Your task to perform on an android device: uninstall "Cash App" Image 0: 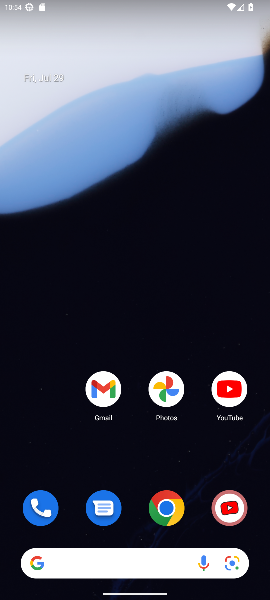
Step 0: drag from (175, 559) to (183, 73)
Your task to perform on an android device: uninstall "Cash App" Image 1: 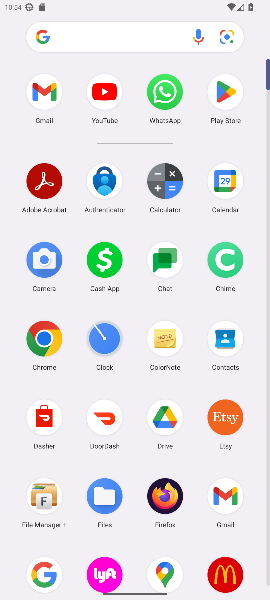
Step 1: click (219, 93)
Your task to perform on an android device: uninstall "Cash App" Image 2: 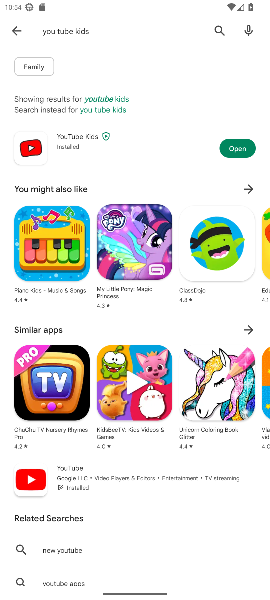
Step 2: click (223, 29)
Your task to perform on an android device: uninstall "Cash App" Image 3: 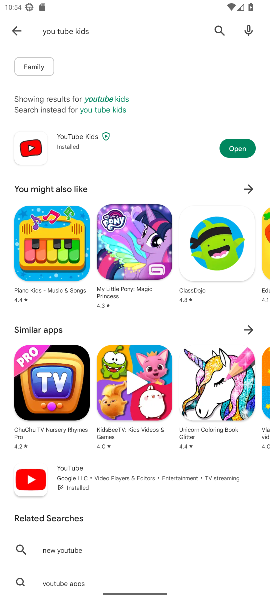
Step 3: click (223, 29)
Your task to perform on an android device: uninstall "Cash App" Image 4: 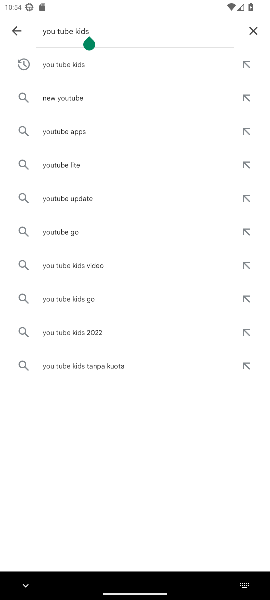
Step 4: click (252, 29)
Your task to perform on an android device: uninstall "Cash App" Image 5: 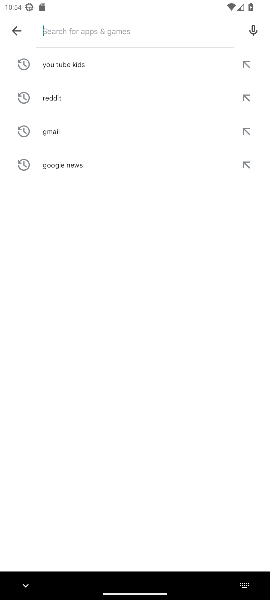
Step 5: type "cashapp"
Your task to perform on an android device: uninstall "Cash App" Image 6: 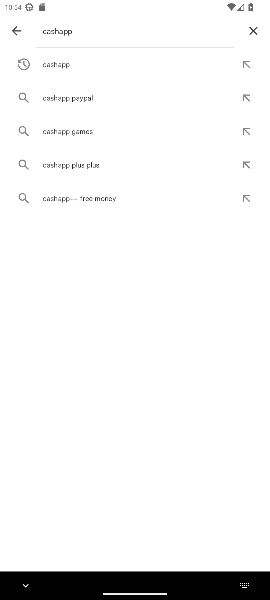
Step 6: click (66, 60)
Your task to perform on an android device: uninstall "Cash App" Image 7: 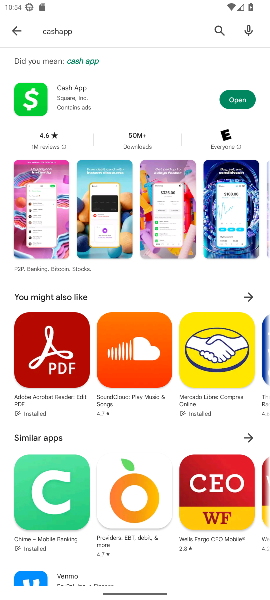
Step 7: task complete